Your task to perform on an android device: Turn on the flashlight Image 0: 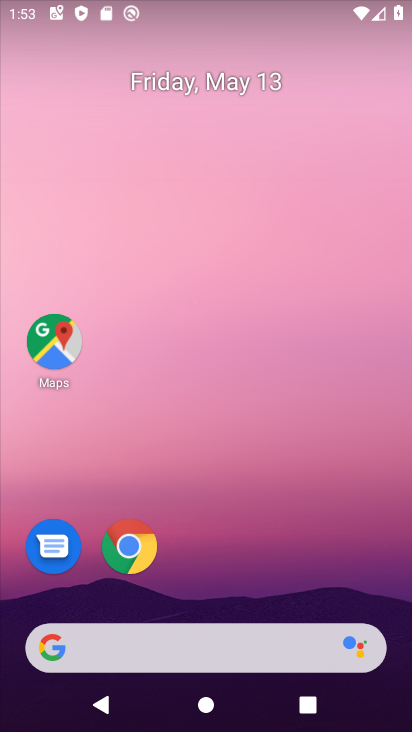
Step 0: drag from (239, 0) to (270, 465)
Your task to perform on an android device: Turn on the flashlight Image 1: 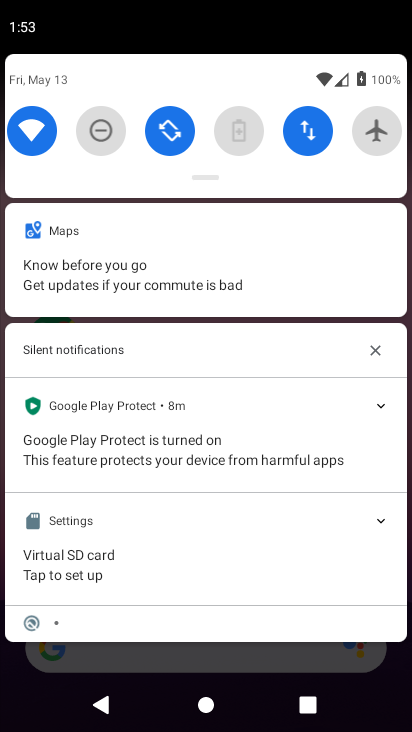
Step 1: task complete